Your task to perform on an android device: turn on javascript in the chrome app Image 0: 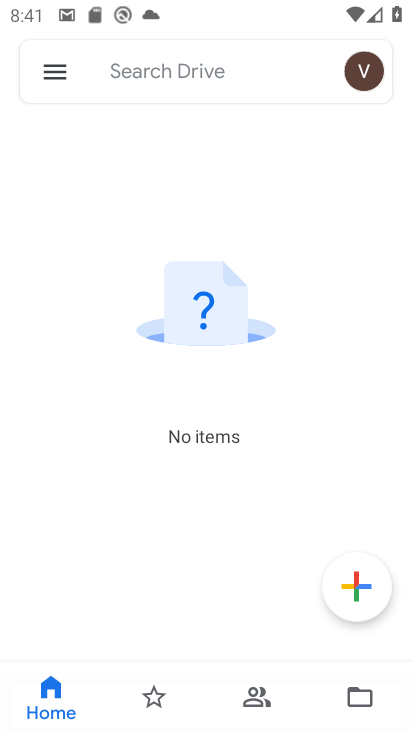
Step 0: press home button
Your task to perform on an android device: turn on javascript in the chrome app Image 1: 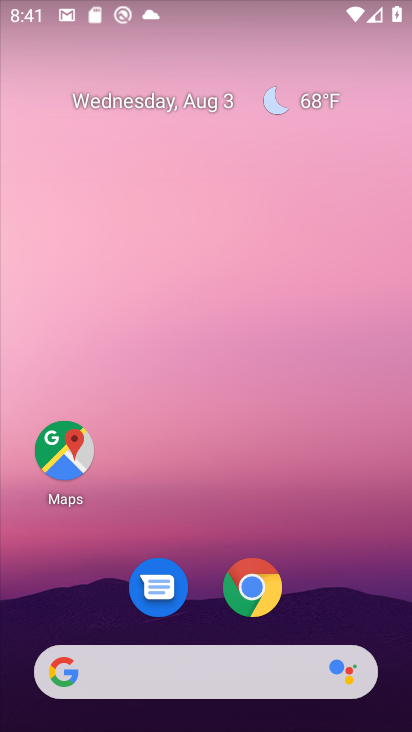
Step 1: click (272, 584)
Your task to perform on an android device: turn on javascript in the chrome app Image 2: 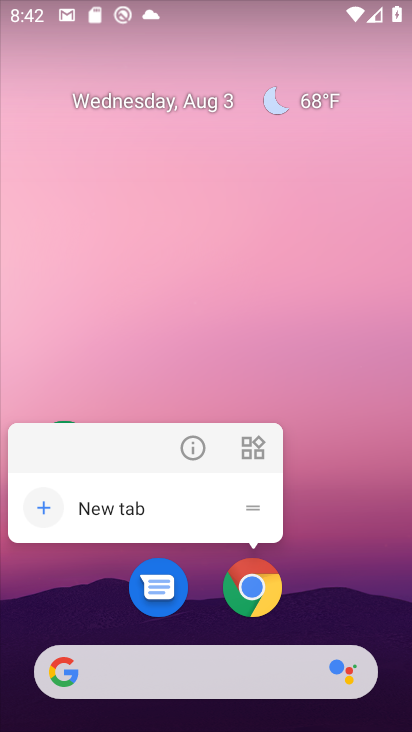
Step 2: click (258, 590)
Your task to perform on an android device: turn on javascript in the chrome app Image 3: 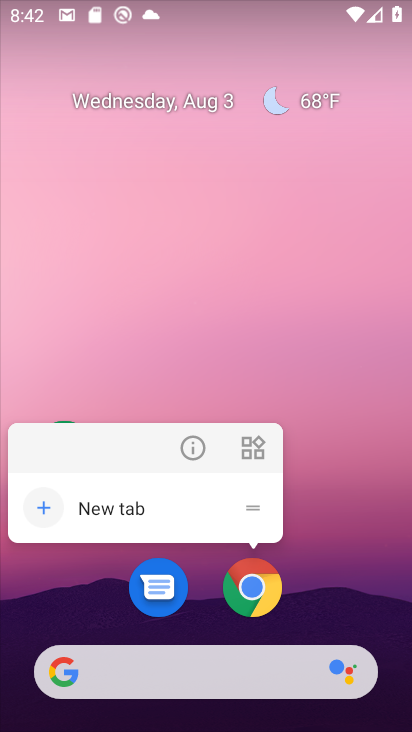
Step 3: click (258, 586)
Your task to perform on an android device: turn on javascript in the chrome app Image 4: 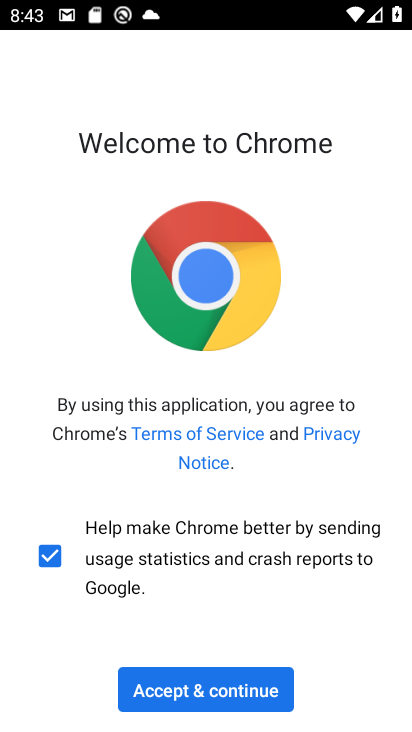
Step 4: click (236, 683)
Your task to perform on an android device: turn on javascript in the chrome app Image 5: 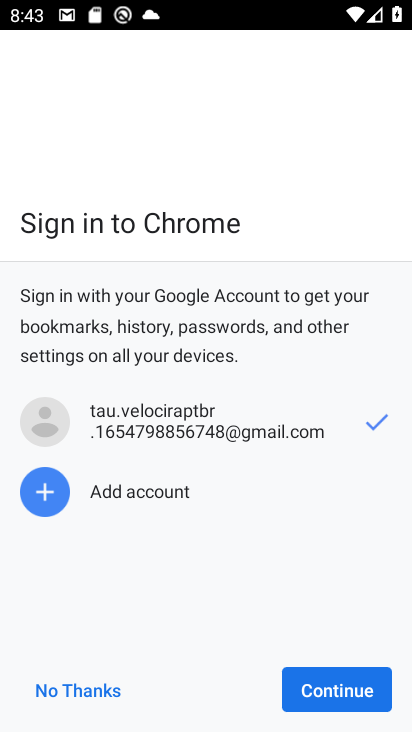
Step 5: click (351, 687)
Your task to perform on an android device: turn on javascript in the chrome app Image 6: 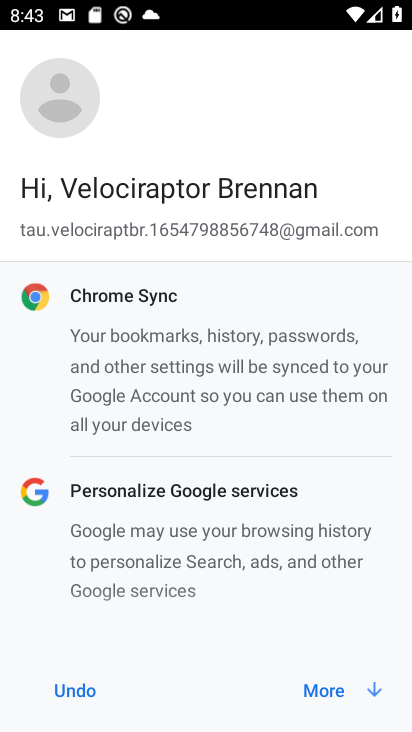
Step 6: click (326, 683)
Your task to perform on an android device: turn on javascript in the chrome app Image 7: 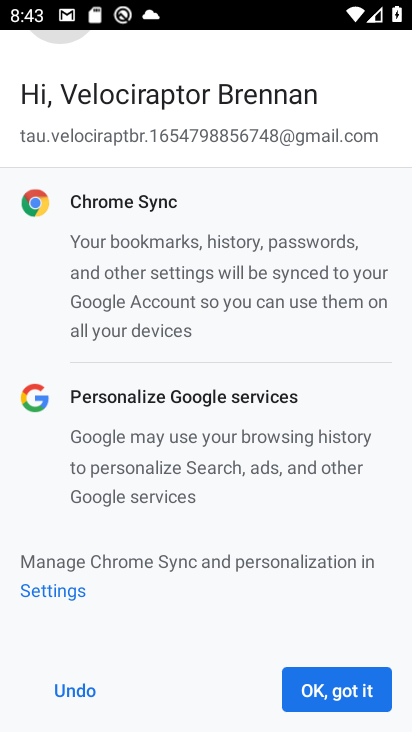
Step 7: click (316, 681)
Your task to perform on an android device: turn on javascript in the chrome app Image 8: 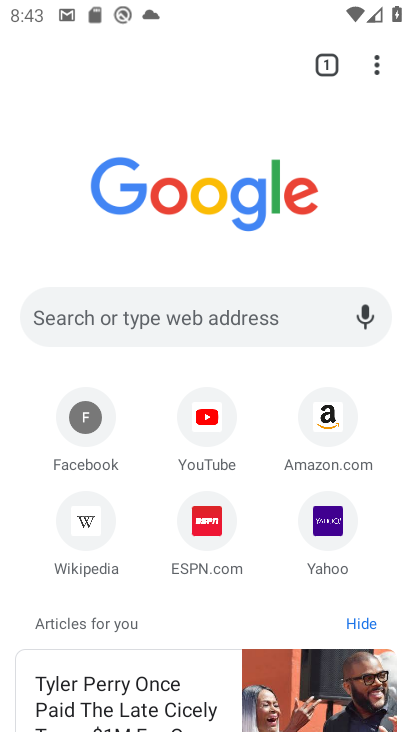
Step 8: click (376, 65)
Your task to perform on an android device: turn on javascript in the chrome app Image 9: 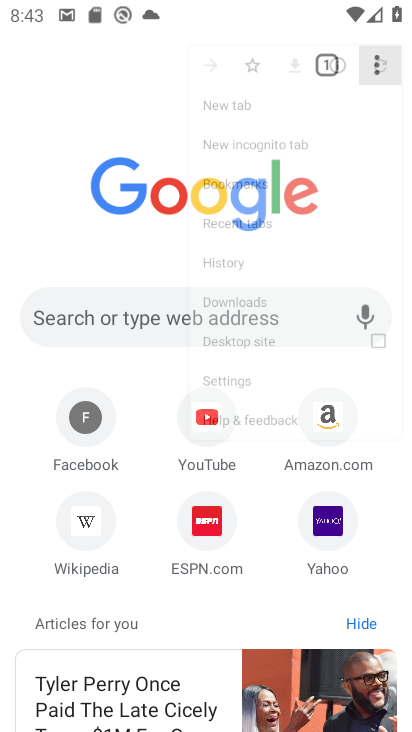
Step 9: drag from (376, 65) to (170, 555)
Your task to perform on an android device: turn on javascript in the chrome app Image 10: 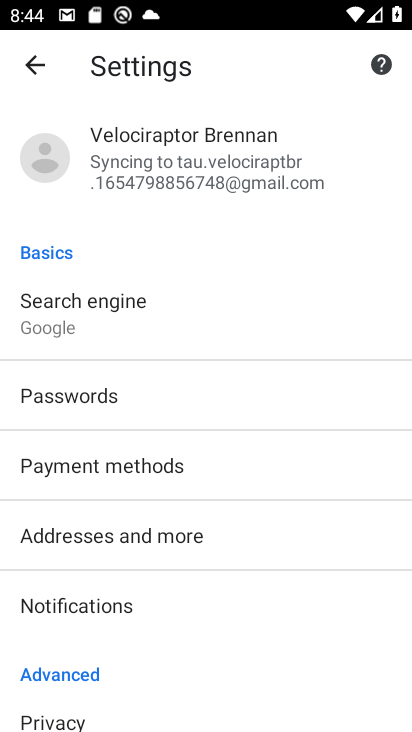
Step 10: drag from (280, 662) to (297, 241)
Your task to perform on an android device: turn on javascript in the chrome app Image 11: 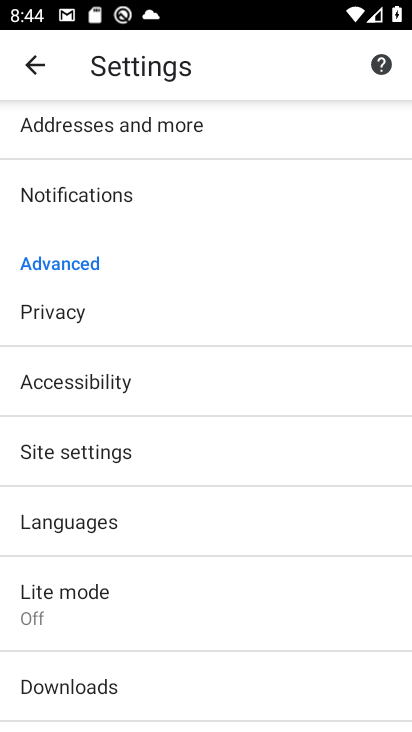
Step 11: click (99, 451)
Your task to perform on an android device: turn on javascript in the chrome app Image 12: 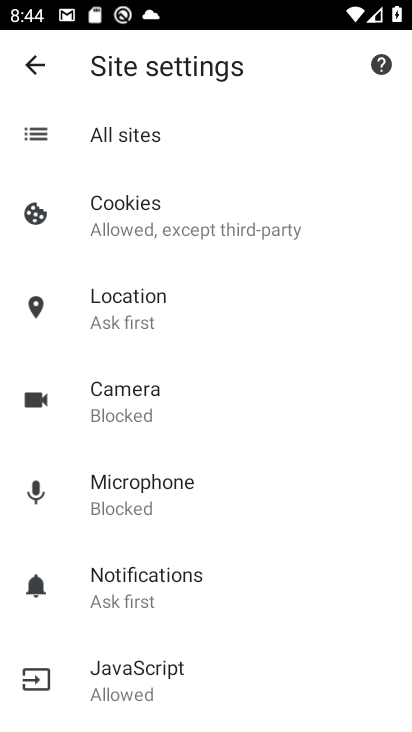
Step 12: drag from (278, 596) to (295, 148)
Your task to perform on an android device: turn on javascript in the chrome app Image 13: 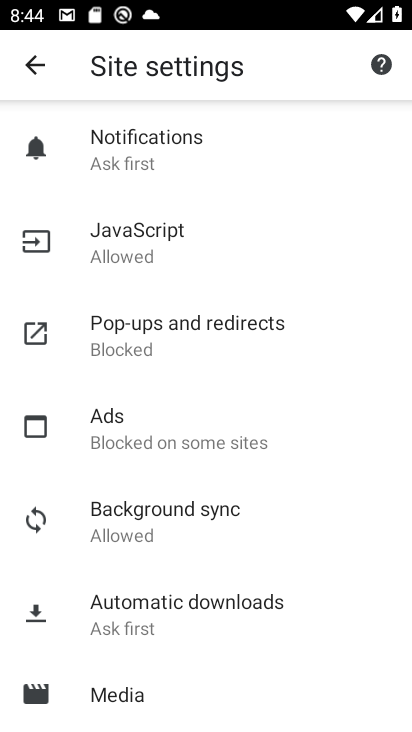
Step 13: click (138, 251)
Your task to perform on an android device: turn on javascript in the chrome app Image 14: 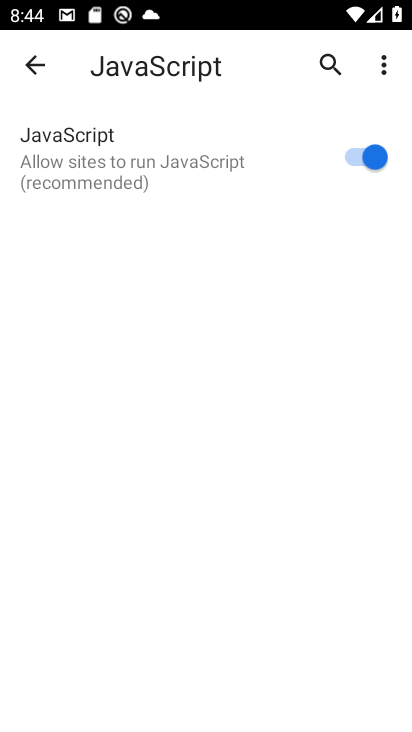
Step 14: task complete